Your task to perform on an android device: find photos in the google photos app Image 0: 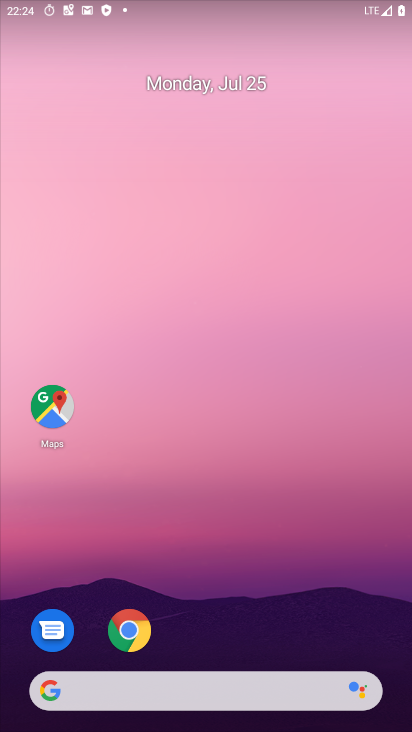
Step 0: press home button
Your task to perform on an android device: find photos in the google photos app Image 1: 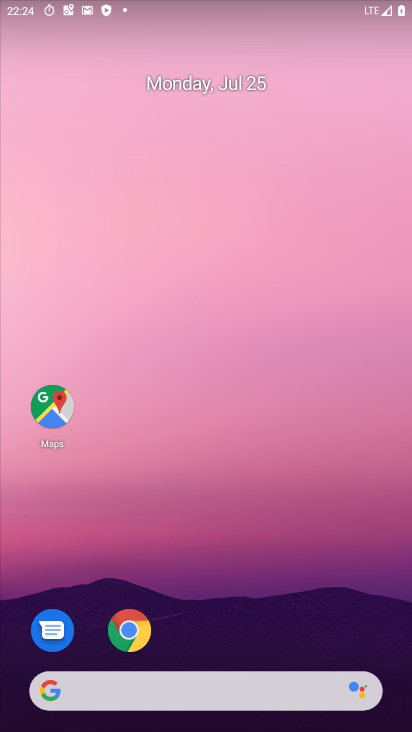
Step 1: drag from (285, 625) to (226, 106)
Your task to perform on an android device: find photos in the google photos app Image 2: 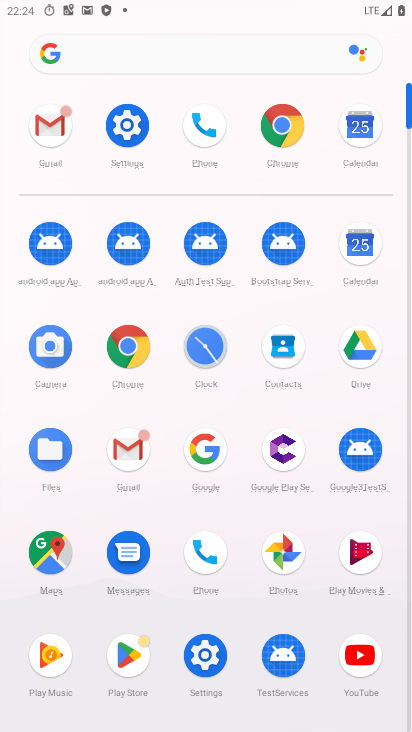
Step 2: click (274, 544)
Your task to perform on an android device: find photos in the google photos app Image 3: 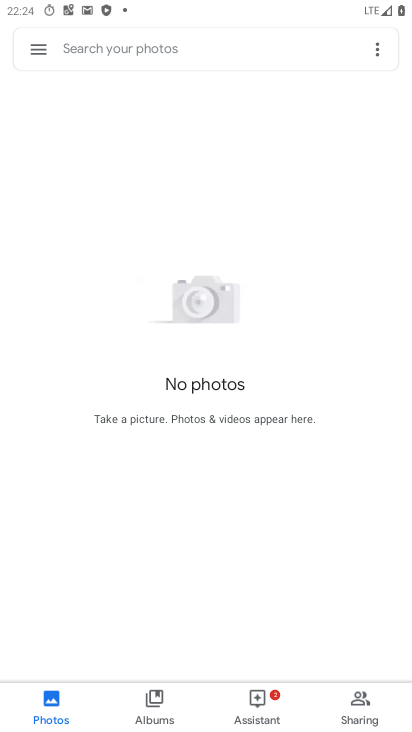
Step 3: task complete